Your task to perform on an android device: turn off javascript in the chrome app Image 0: 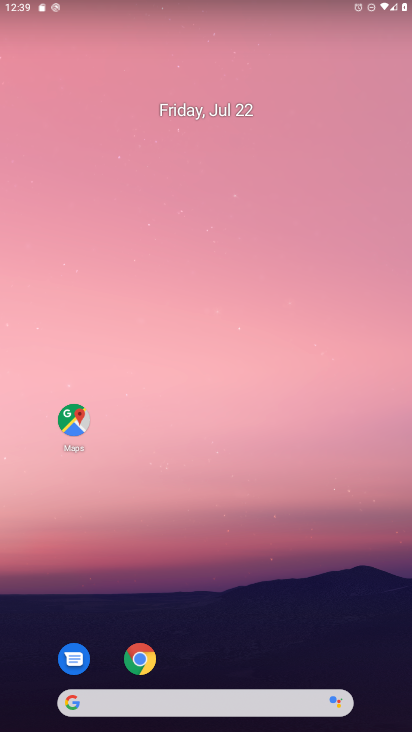
Step 0: click (142, 663)
Your task to perform on an android device: turn off javascript in the chrome app Image 1: 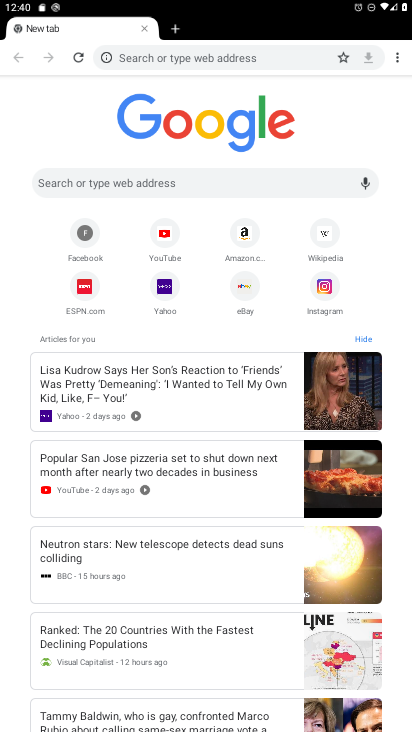
Step 1: click (397, 57)
Your task to perform on an android device: turn off javascript in the chrome app Image 2: 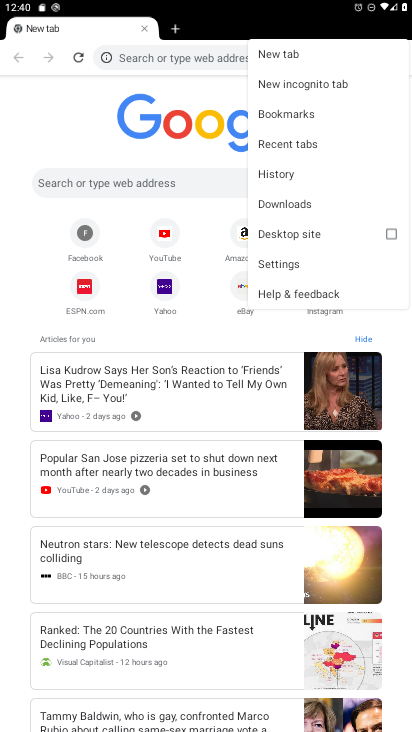
Step 2: click (265, 264)
Your task to perform on an android device: turn off javascript in the chrome app Image 3: 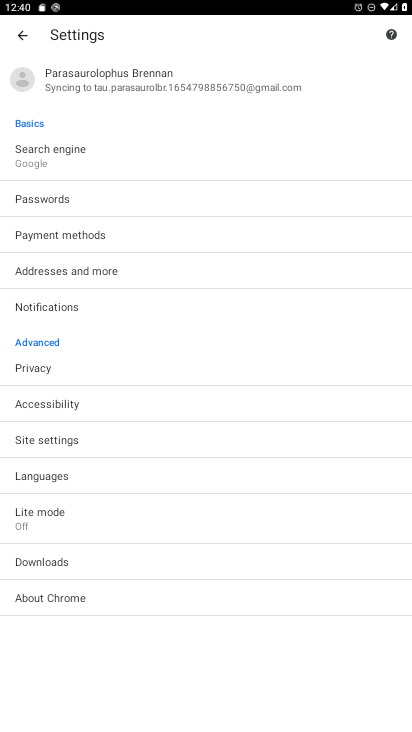
Step 3: click (35, 442)
Your task to perform on an android device: turn off javascript in the chrome app Image 4: 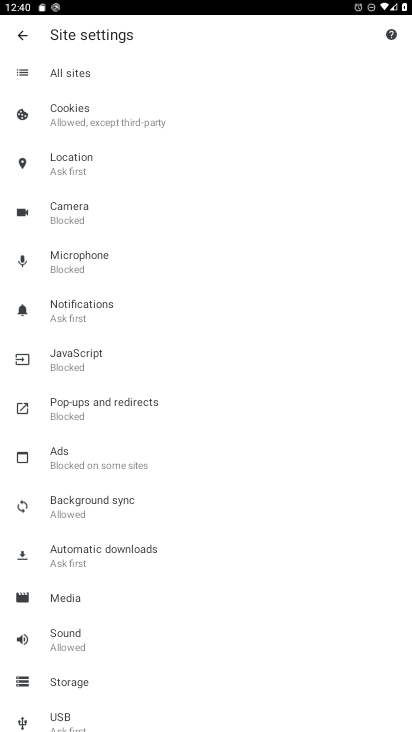
Step 4: click (76, 357)
Your task to perform on an android device: turn off javascript in the chrome app Image 5: 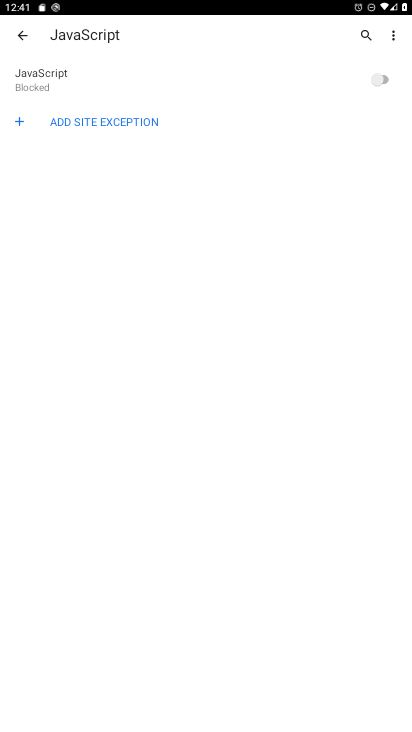
Step 5: task complete